Your task to perform on an android device: open app "Spotify: Music and Podcasts" Image 0: 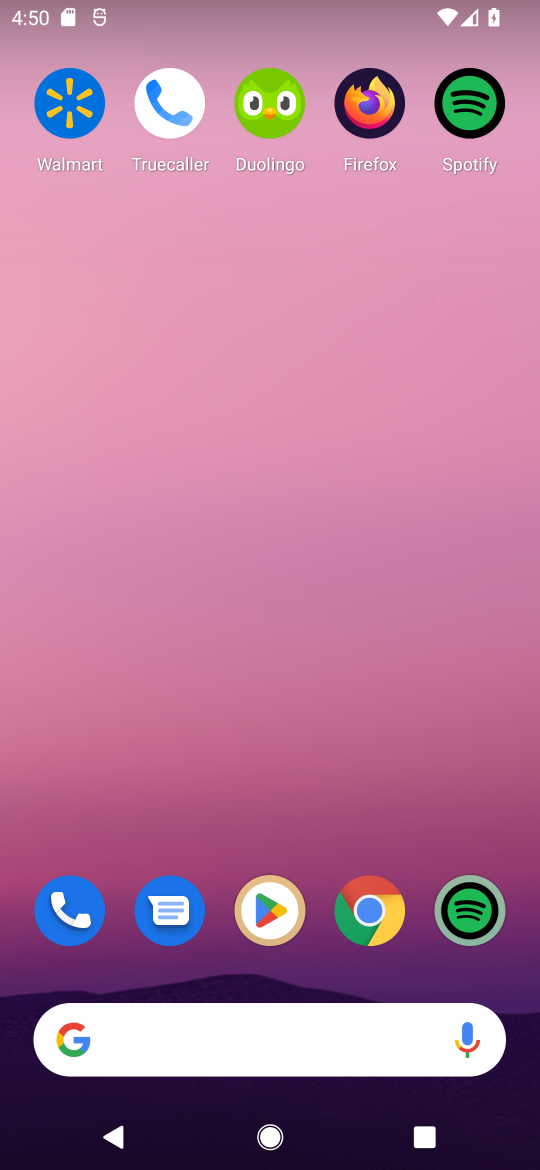
Step 0: click (461, 916)
Your task to perform on an android device: open app "Spotify: Music and Podcasts" Image 1: 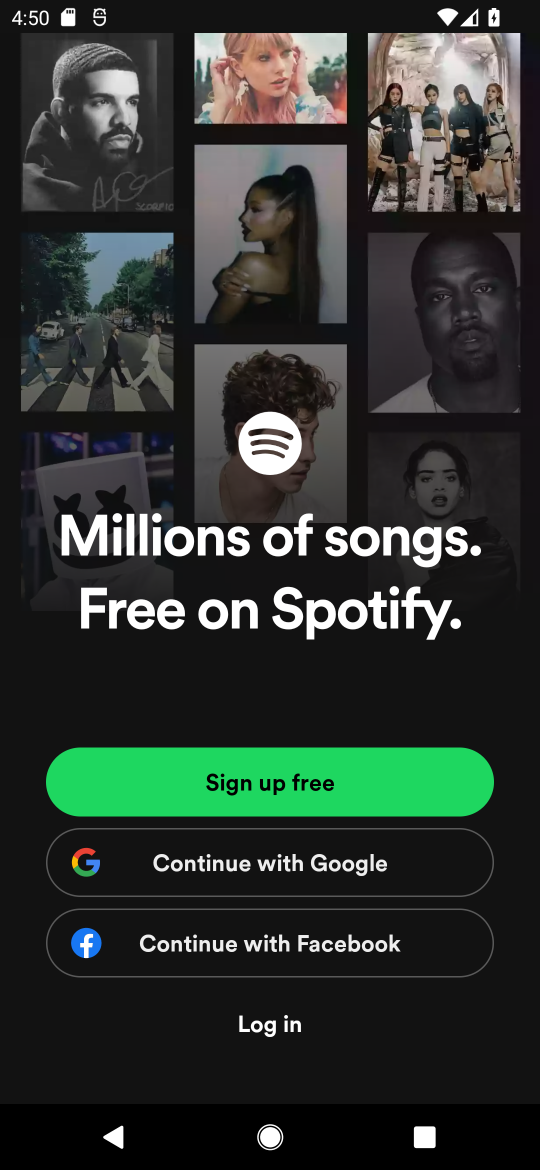
Step 1: task complete